Your task to perform on an android device: Go to Reddit.com Image 0: 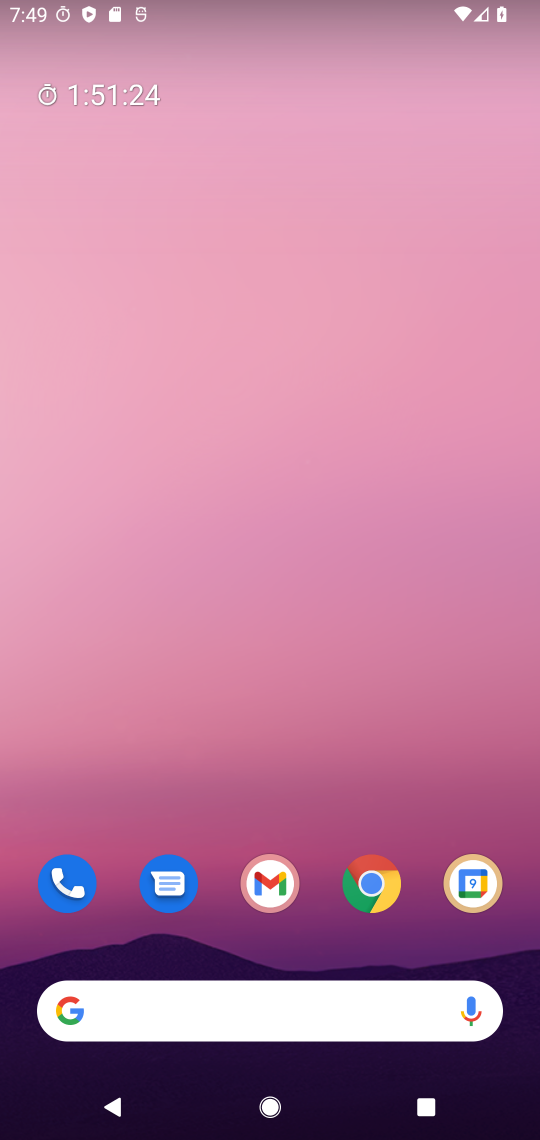
Step 0: click (359, 875)
Your task to perform on an android device: Go to Reddit.com Image 1: 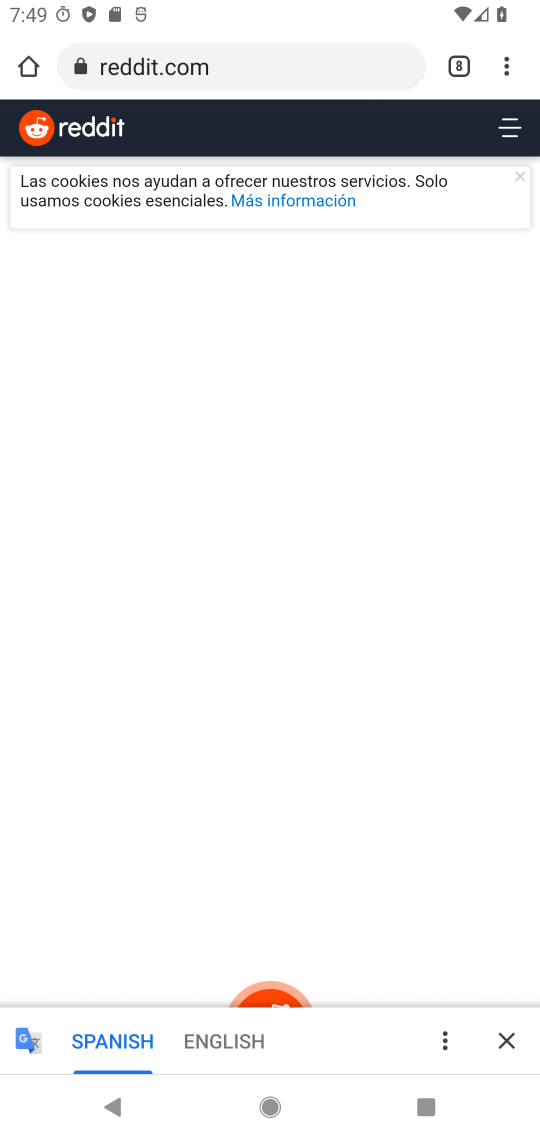
Step 1: task complete